Your task to perform on an android device: Go to wifi settings Image 0: 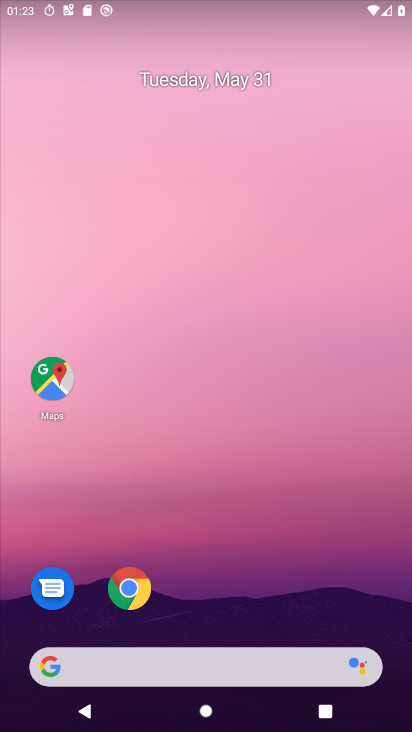
Step 0: drag from (207, 618) to (250, 224)
Your task to perform on an android device: Go to wifi settings Image 1: 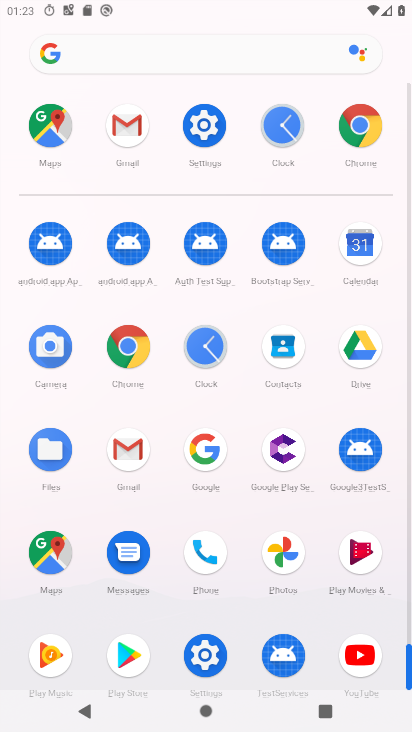
Step 1: click (220, 135)
Your task to perform on an android device: Go to wifi settings Image 2: 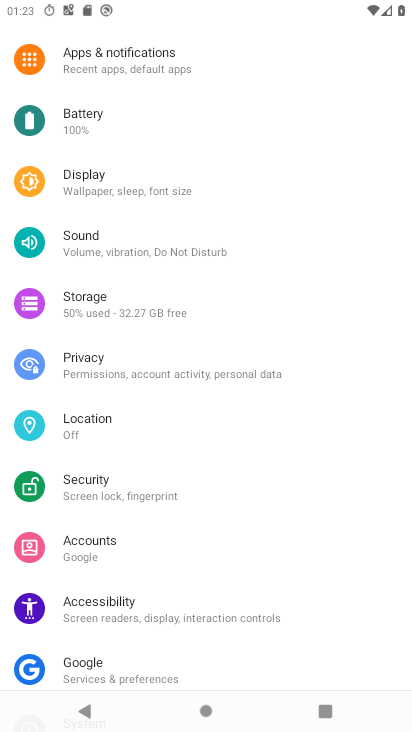
Step 2: drag from (130, 156) to (148, 613)
Your task to perform on an android device: Go to wifi settings Image 3: 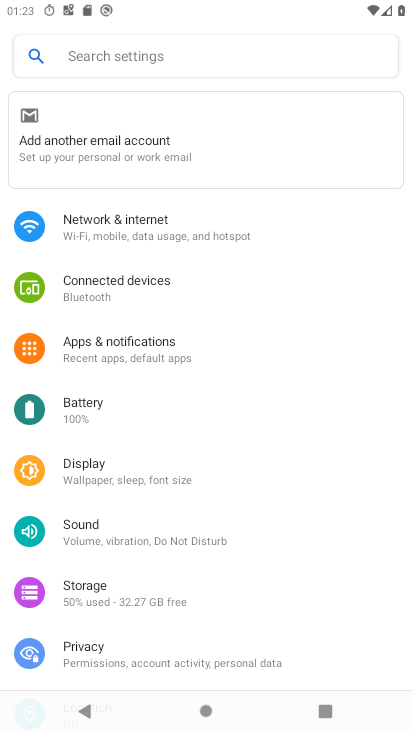
Step 3: click (138, 223)
Your task to perform on an android device: Go to wifi settings Image 4: 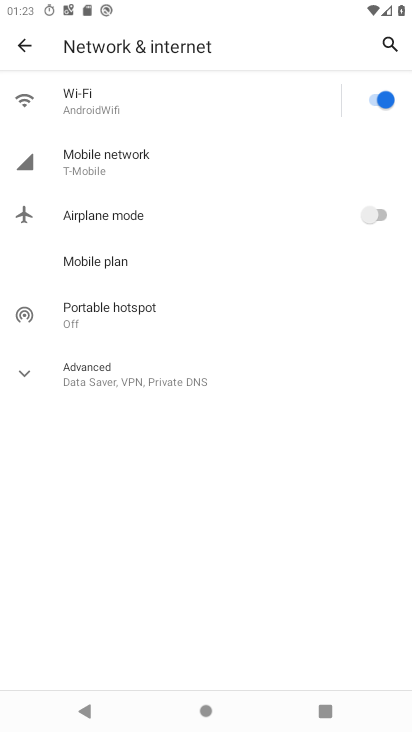
Step 4: click (135, 93)
Your task to perform on an android device: Go to wifi settings Image 5: 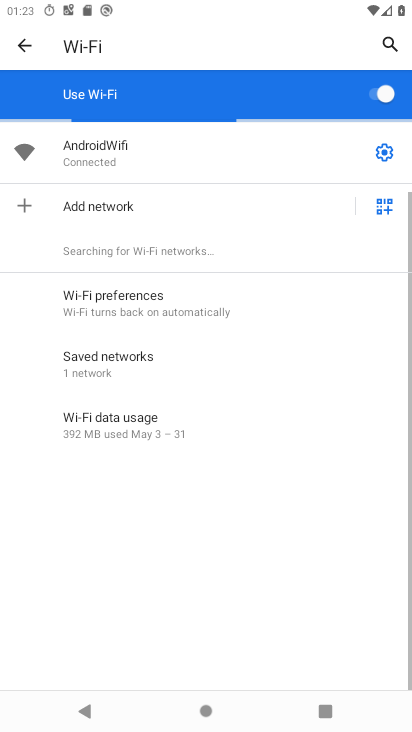
Step 5: task complete